Your task to perform on an android device: Toggle the flashlight Image 0: 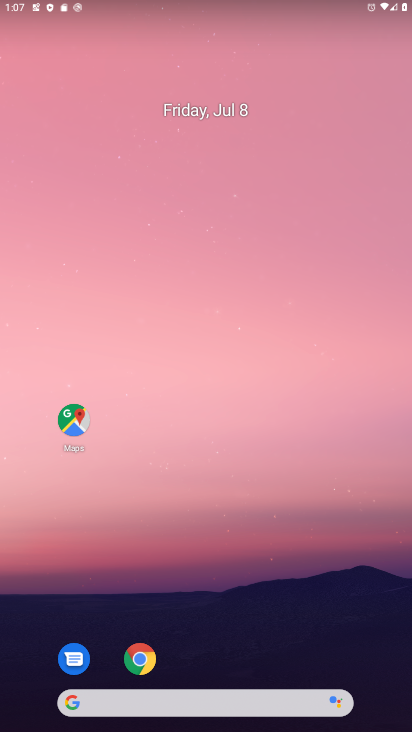
Step 0: drag from (263, 574) to (150, 127)
Your task to perform on an android device: Toggle the flashlight Image 1: 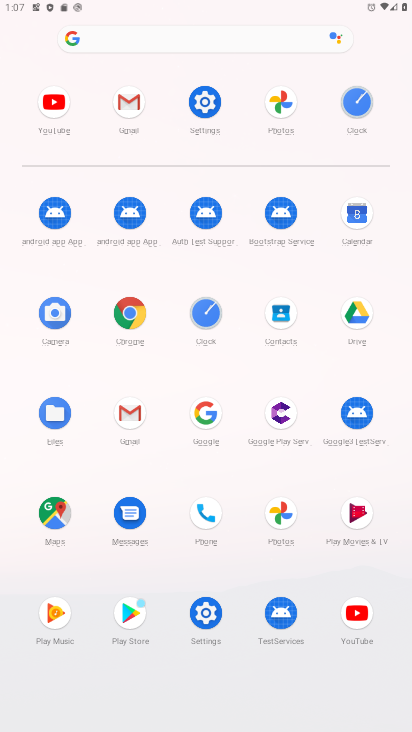
Step 1: click (204, 100)
Your task to perform on an android device: Toggle the flashlight Image 2: 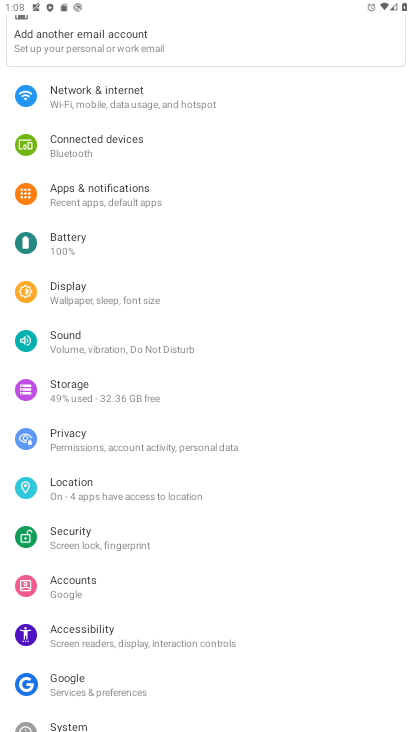
Step 2: click (81, 292)
Your task to perform on an android device: Toggle the flashlight Image 3: 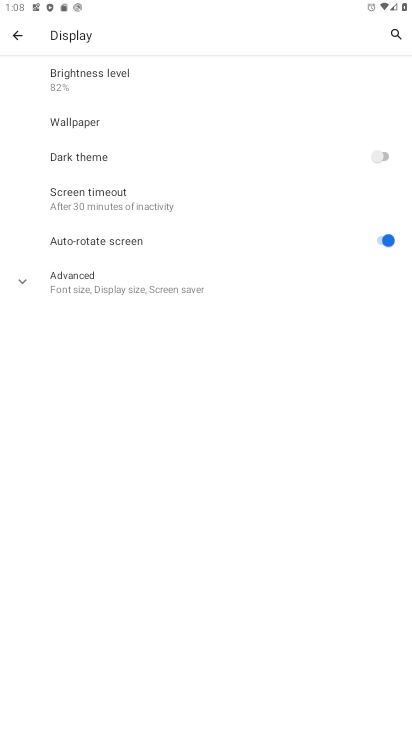
Step 3: task complete